Your task to perform on an android device: Add "bose soundlink mini" to the cart on newegg, then select checkout. Image 0: 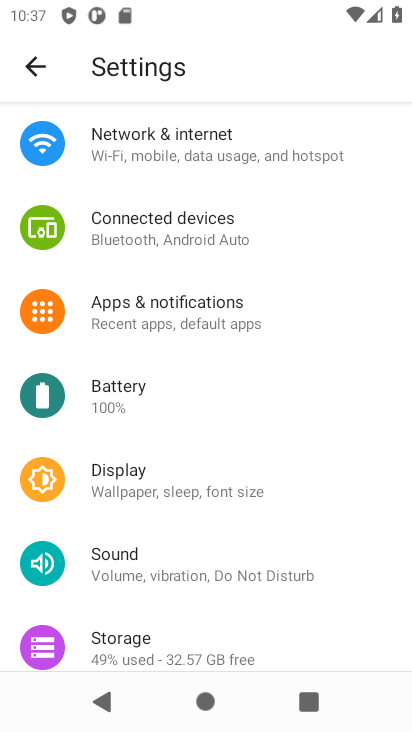
Step 0: press home button
Your task to perform on an android device: Add "bose soundlink mini" to the cart on newegg, then select checkout. Image 1: 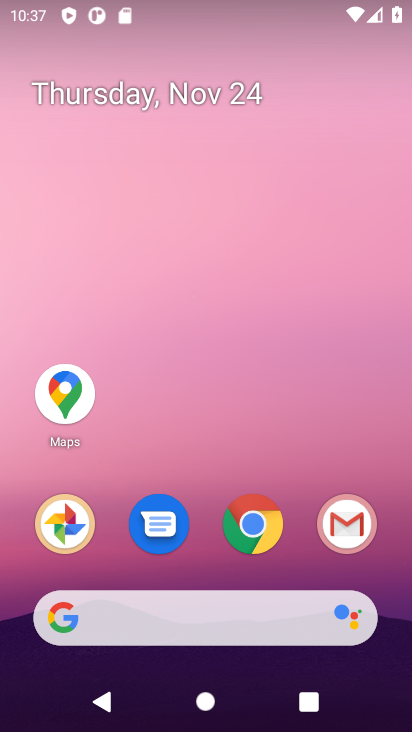
Step 1: click (252, 512)
Your task to perform on an android device: Add "bose soundlink mini" to the cart on newegg, then select checkout. Image 2: 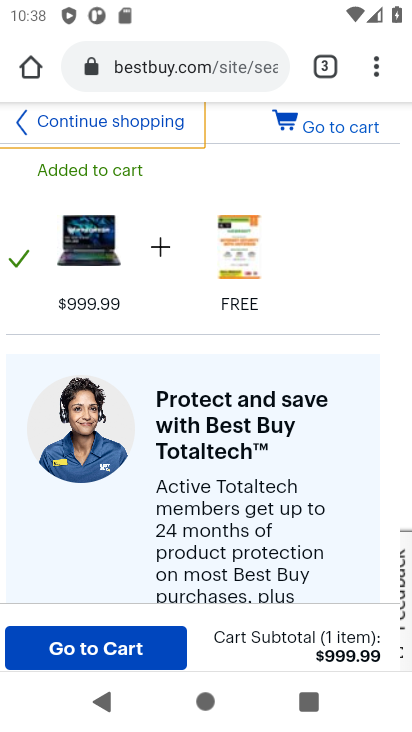
Step 2: click (168, 67)
Your task to perform on an android device: Add "bose soundlink mini" to the cart on newegg, then select checkout. Image 3: 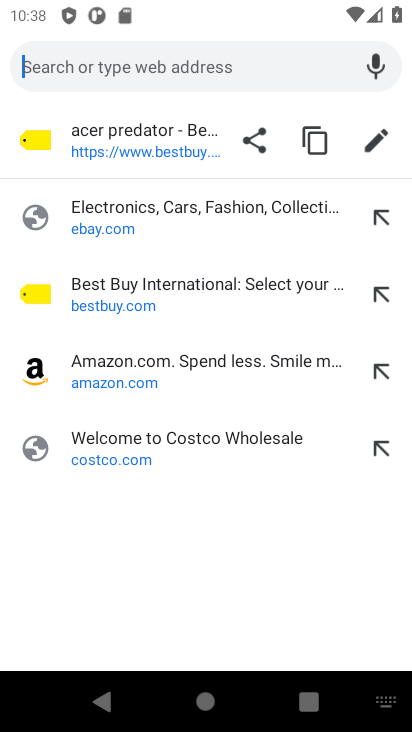
Step 3: type "newegg.com"
Your task to perform on an android device: Add "bose soundlink mini" to the cart on newegg, then select checkout. Image 4: 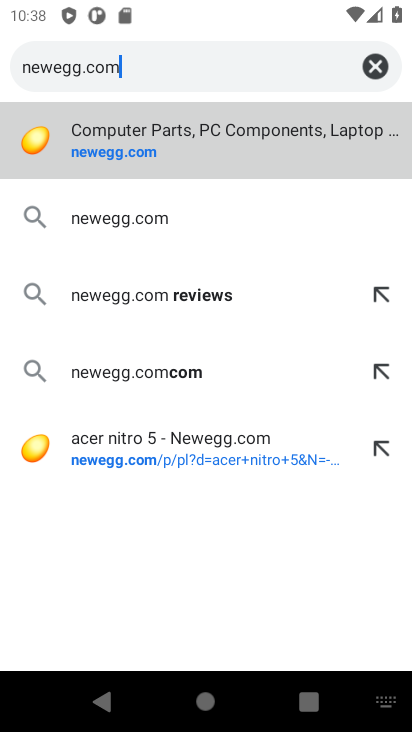
Step 4: click (113, 145)
Your task to perform on an android device: Add "bose soundlink mini" to the cart on newegg, then select checkout. Image 5: 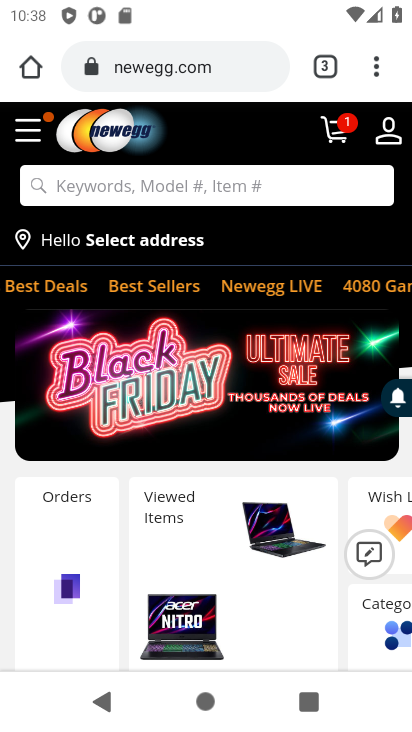
Step 5: click (100, 196)
Your task to perform on an android device: Add "bose soundlink mini" to the cart on newegg, then select checkout. Image 6: 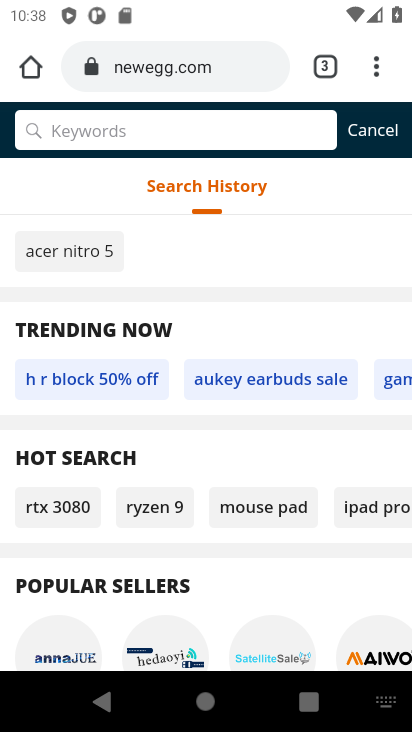
Step 6: type "bose soundlink mini"
Your task to perform on an android device: Add "bose soundlink mini" to the cart on newegg, then select checkout. Image 7: 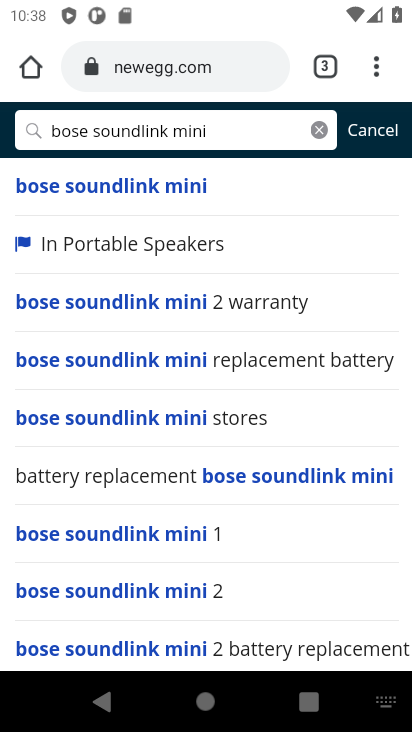
Step 7: click (121, 191)
Your task to perform on an android device: Add "bose soundlink mini" to the cart on newegg, then select checkout. Image 8: 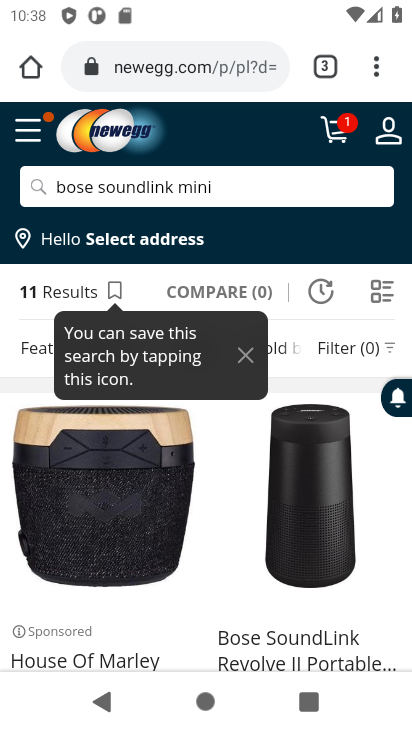
Step 8: drag from (196, 487) to (185, 324)
Your task to perform on an android device: Add "bose soundlink mini" to the cart on newegg, then select checkout. Image 9: 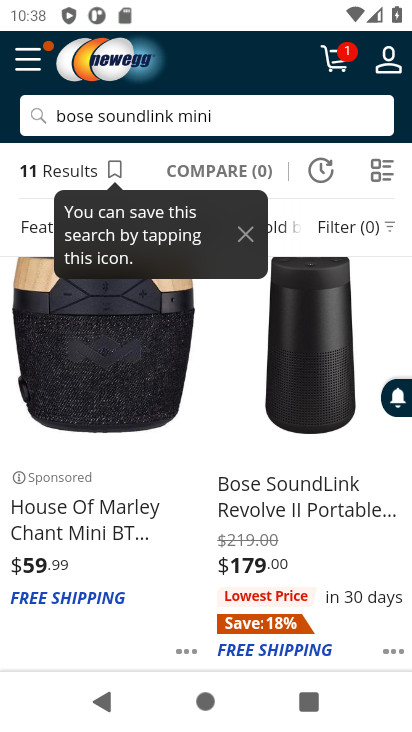
Step 9: drag from (180, 509) to (162, 320)
Your task to perform on an android device: Add "bose soundlink mini" to the cart on newegg, then select checkout. Image 10: 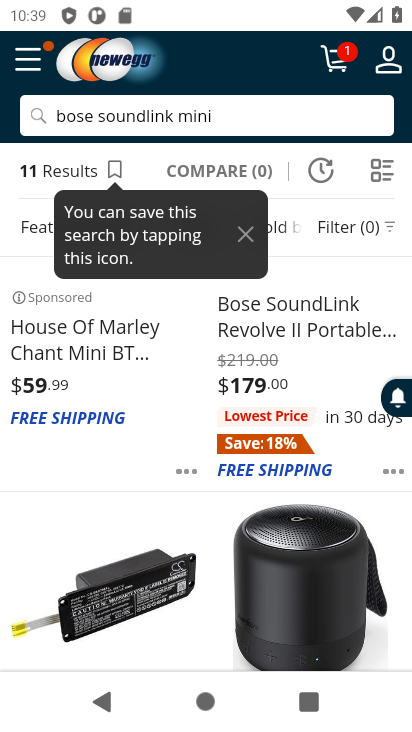
Step 10: drag from (116, 524) to (108, 350)
Your task to perform on an android device: Add "bose soundlink mini" to the cart on newegg, then select checkout. Image 11: 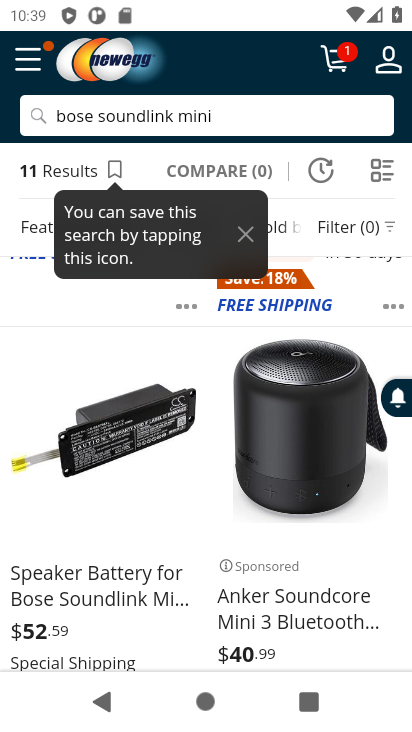
Step 11: drag from (117, 502) to (120, 379)
Your task to perform on an android device: Add "bose soundlink mini" to the cart on newegg, then select checkout. Image 12: 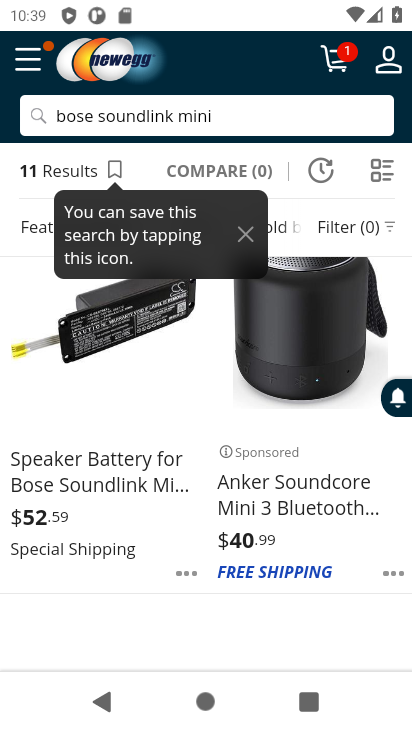
Step 12: click (90, 432)
Your task to perform on an android device: Add "bose soundlink mini" to the cart on newegg, then select checkout. Image 13: 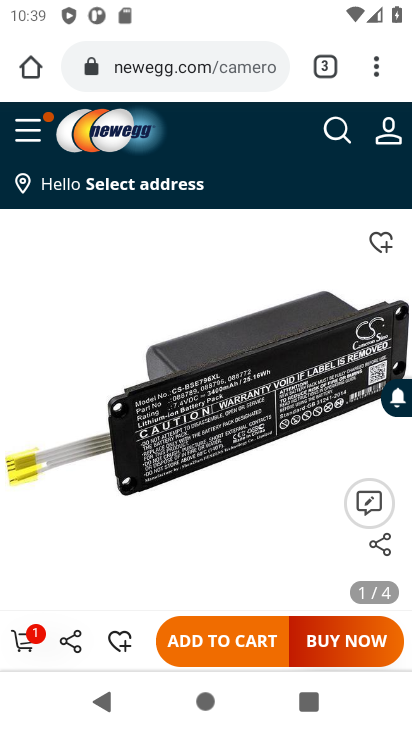
Step 13: click (227, 646)
Your task to perform on an android device: Add "bose soundlink mini" to the cart on newegg, then select checkout. Image 14: 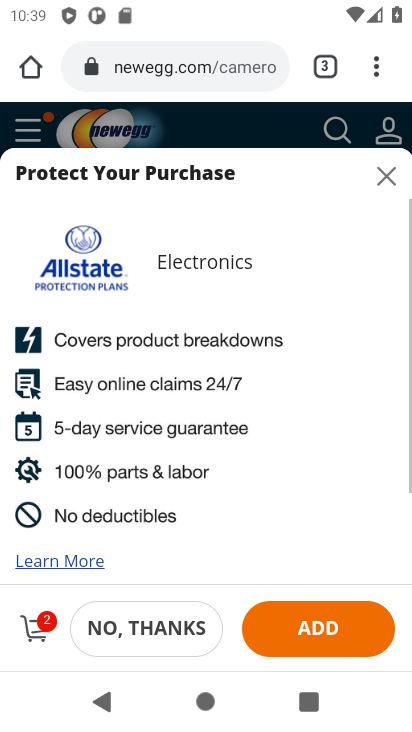
Step 14: click (44, 627)
Your task to perform on an android device: Add "bose soundlink mini" to the cart on newegg, then select checkout. Image 15: 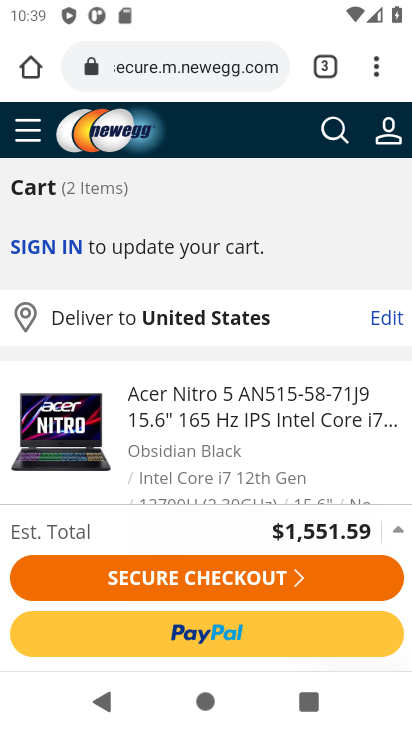
Step 15: click (199, 579)
Your task to perform on an android device: Add "bose soundlink mini" to the cart on newegg, then select checkout. Image 16: 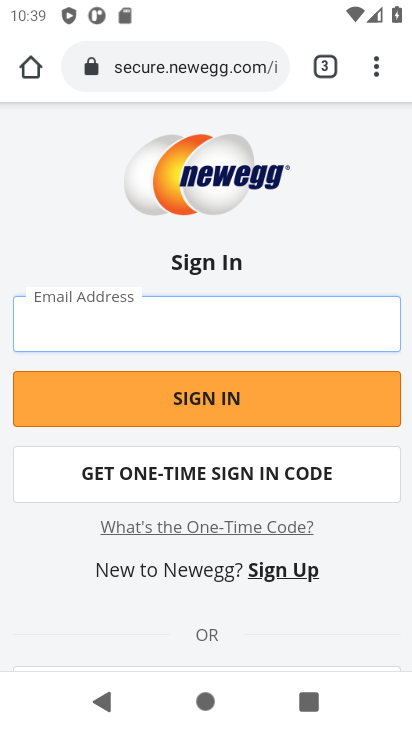
Step 16: task complete